Your task to perform on an android device: Open the calendar app, open the side menu, and click the "Day" option Image 0: 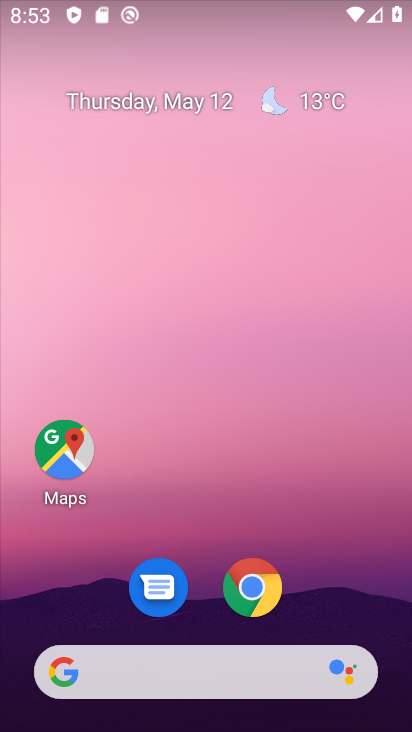
Step 0: drag from (328, 411) to (228, 39)
Your task to perform on an android device: Open the calendar app, open the side menu, and click the "Day" option Image 1: 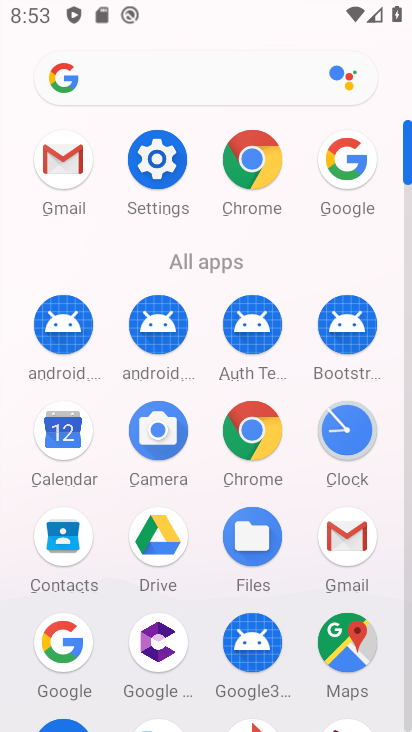
Step 1: click (55, 445)
Your task to perform on an android device: Open the calendar app, open the side menu, and click the "Day" option Image 2: 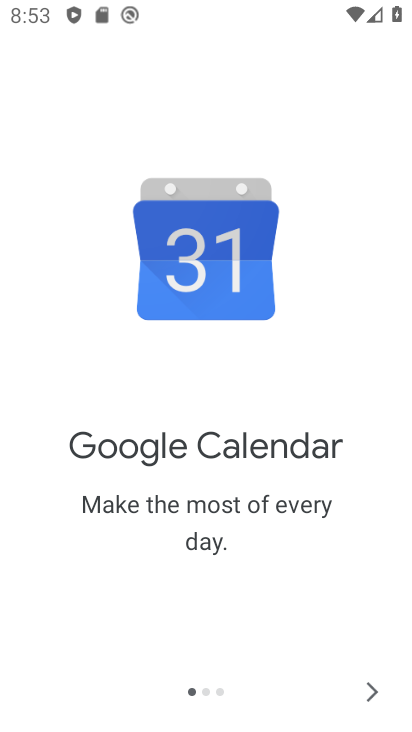
Step 2: click (370, 696)
Your task to perform on an android device: Open the calendar app, open the side menu, and click the "Day" option Image 3: 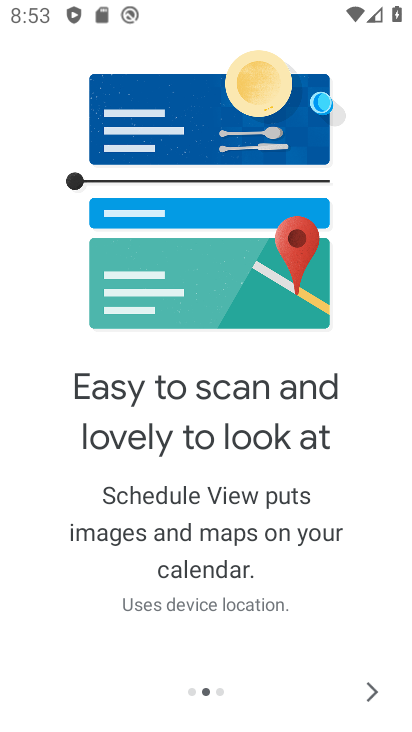
Step 3: click (370, 696)
Your task to perform on an android device: Open the calendar app, open the side menu, and click the "Day" option Image 4: 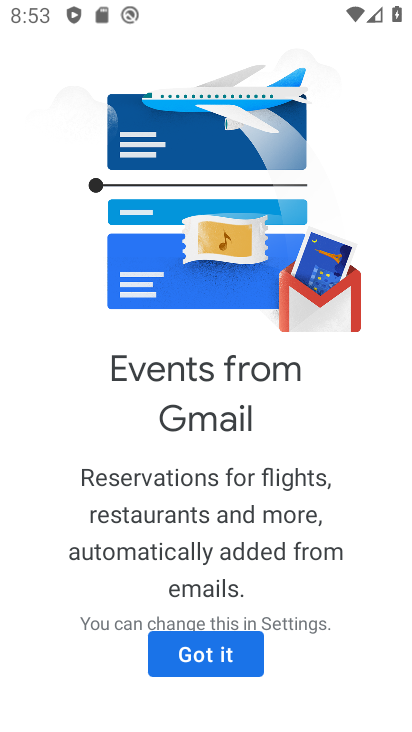
Step 4: click (186, 654)
Your task to perform on an android device: Open the calendar app, open the side menu, and click the "Day" option Image 5: 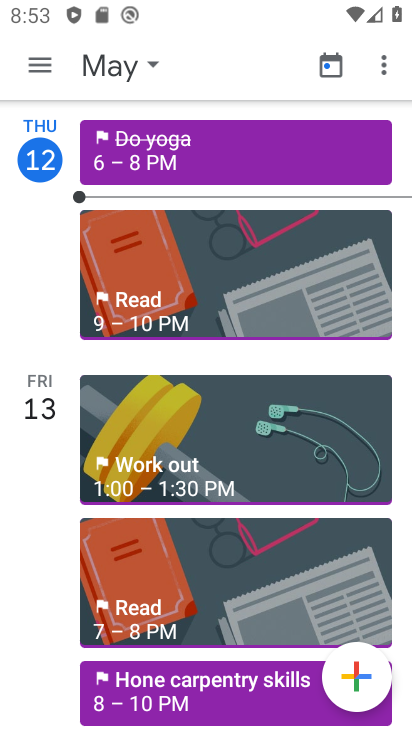
Step 5: click (31, 73)
Your task to perform on an android device: Open the calendar app, open the side menu, and click the "Day" option Image 6: 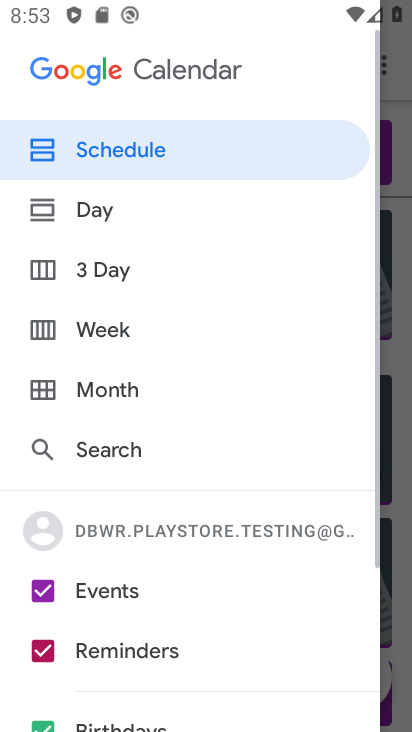
Step 6: click (99, 214)
Your task to perform on an android device: Open the calendar app, open the side menu, and click the "Day" option Image 7: 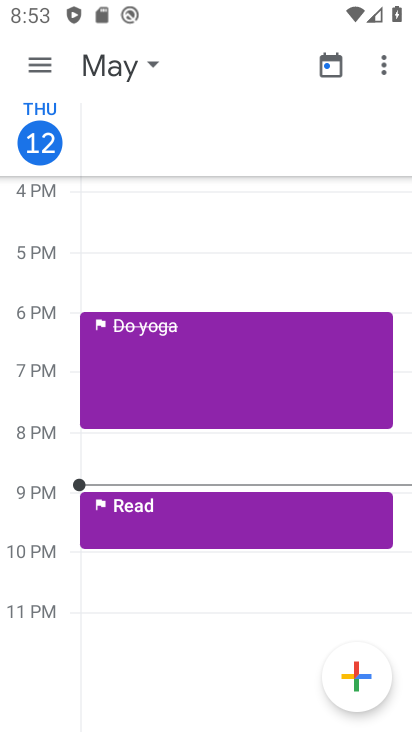
Step 7: task complete